Your task to perform on an android device: open wifi settings Image 0: 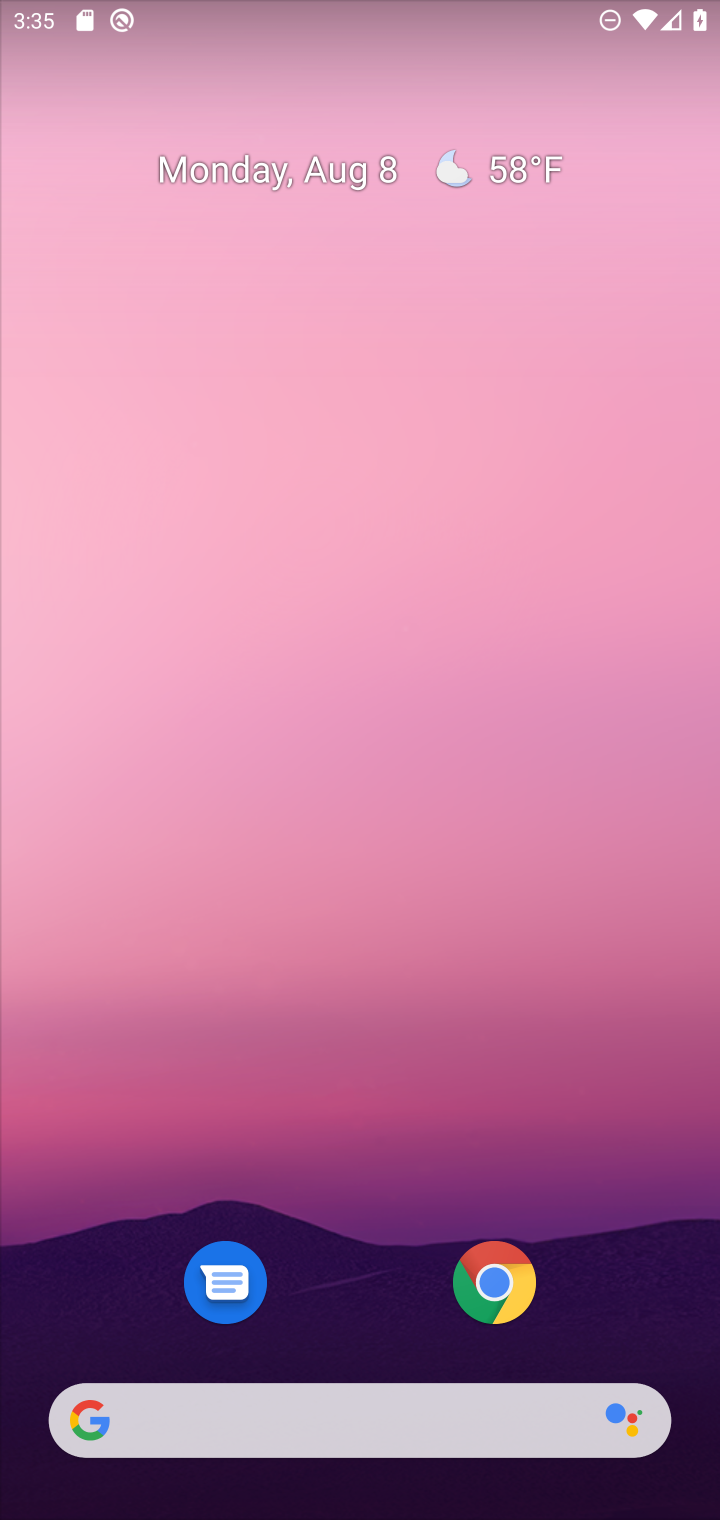
Step 0: drag from (378, 1076) to (442, 313)
Your task to perform on an android device: open wifi settings Image 1: 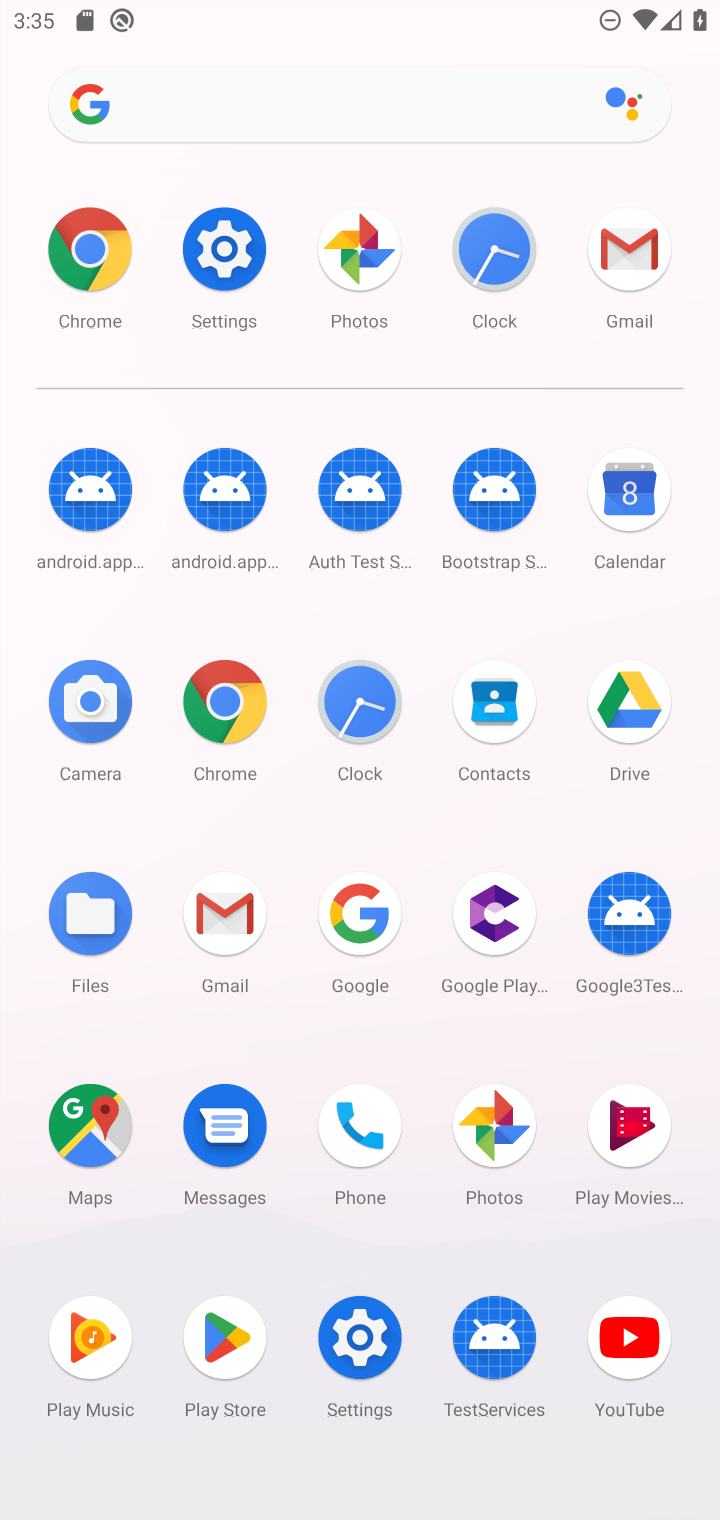
Step 1: click (221, 240)
Your task to perform on an android device: open wifi settings Image 2: 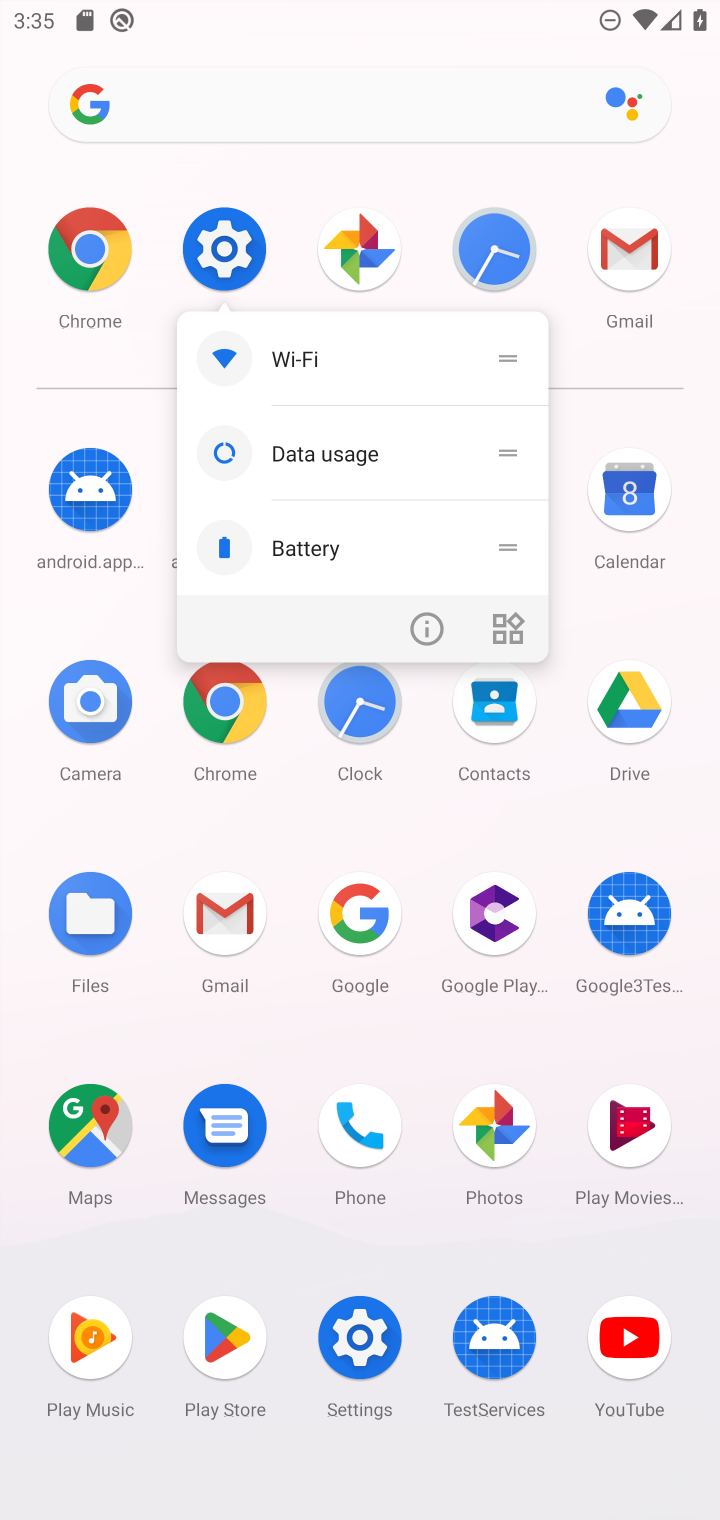
Step 2: click (218, 254)
Your task to perform on an android device: open wifi settings Image 3: 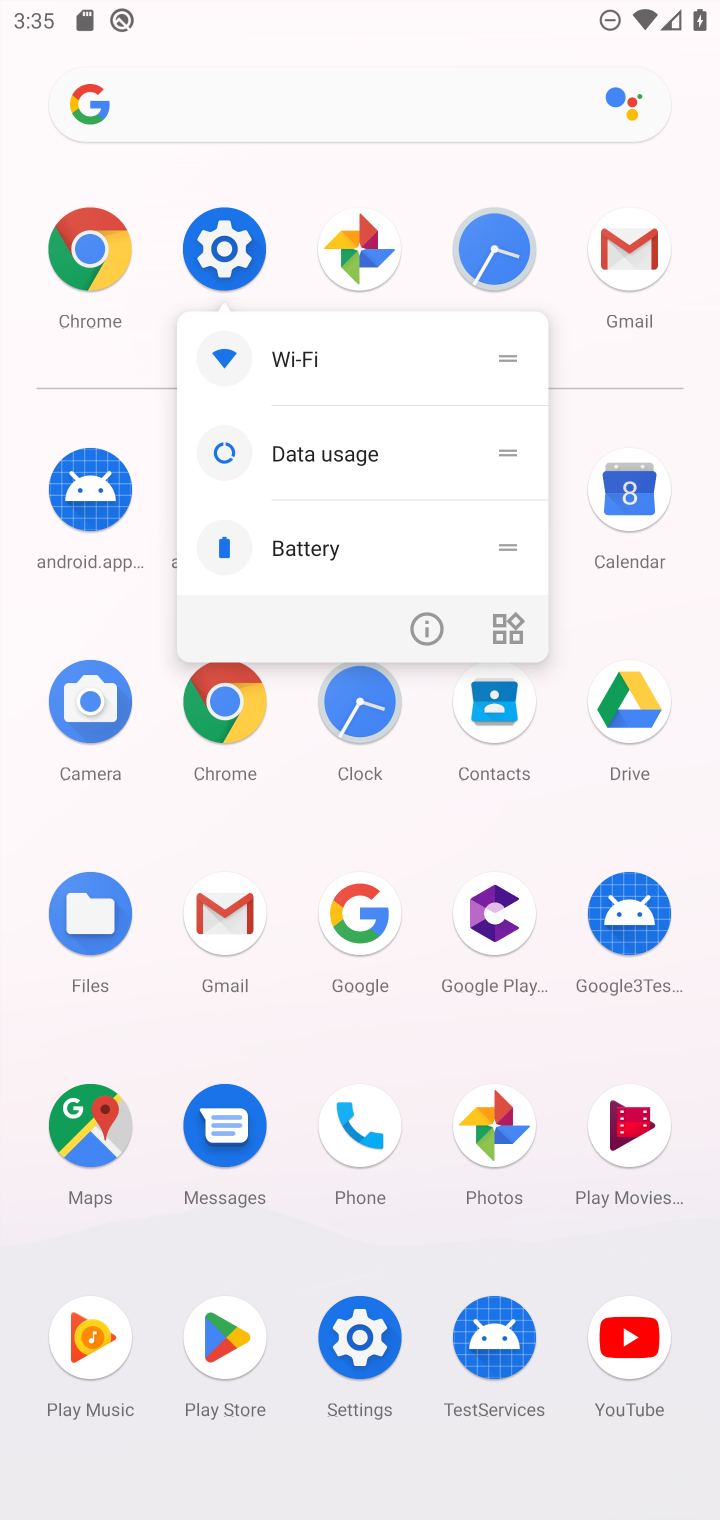
Step 3: click (222, 241)
Your task to perform on an android device: open wifi settings Image 4: 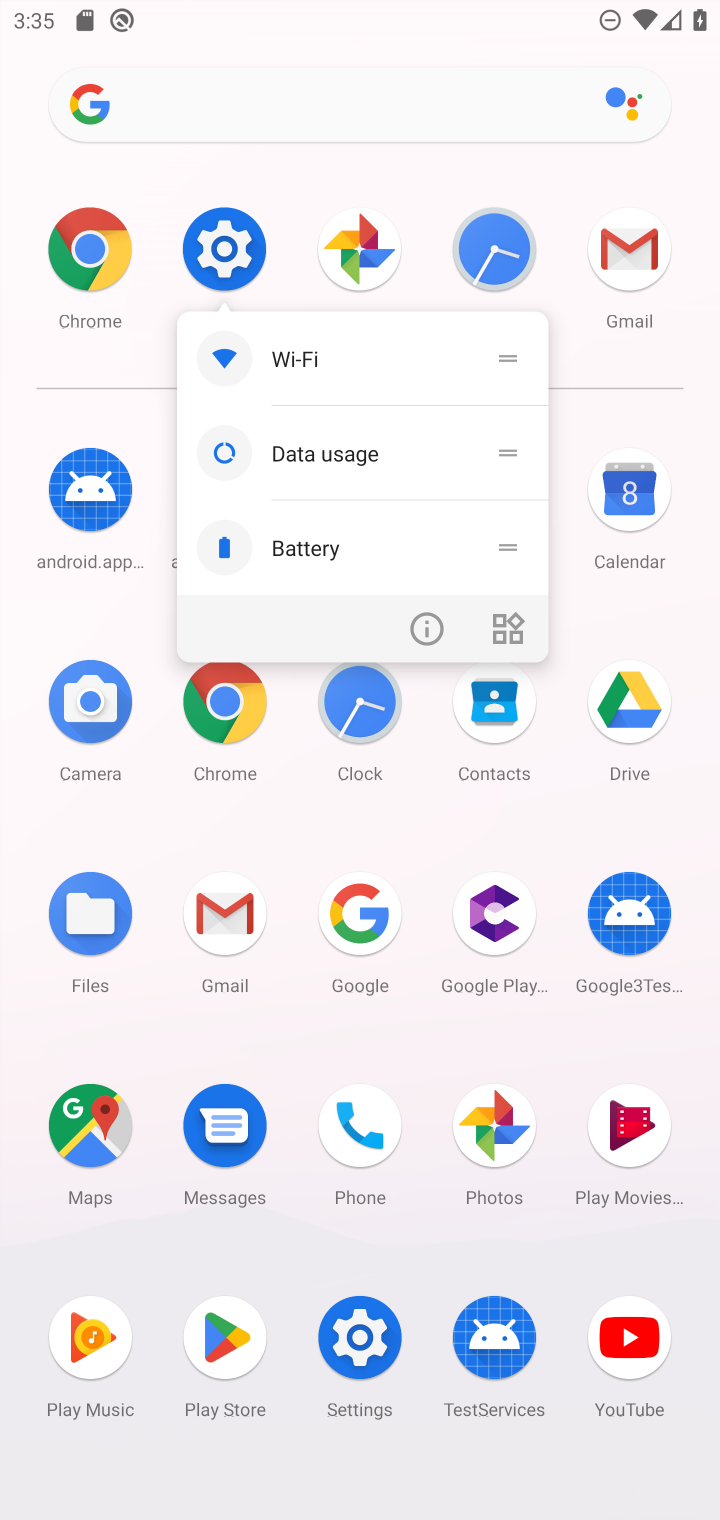
Step 4: click (340, 1325)
Your task to perform on an android device: open wifi settings Image 5: 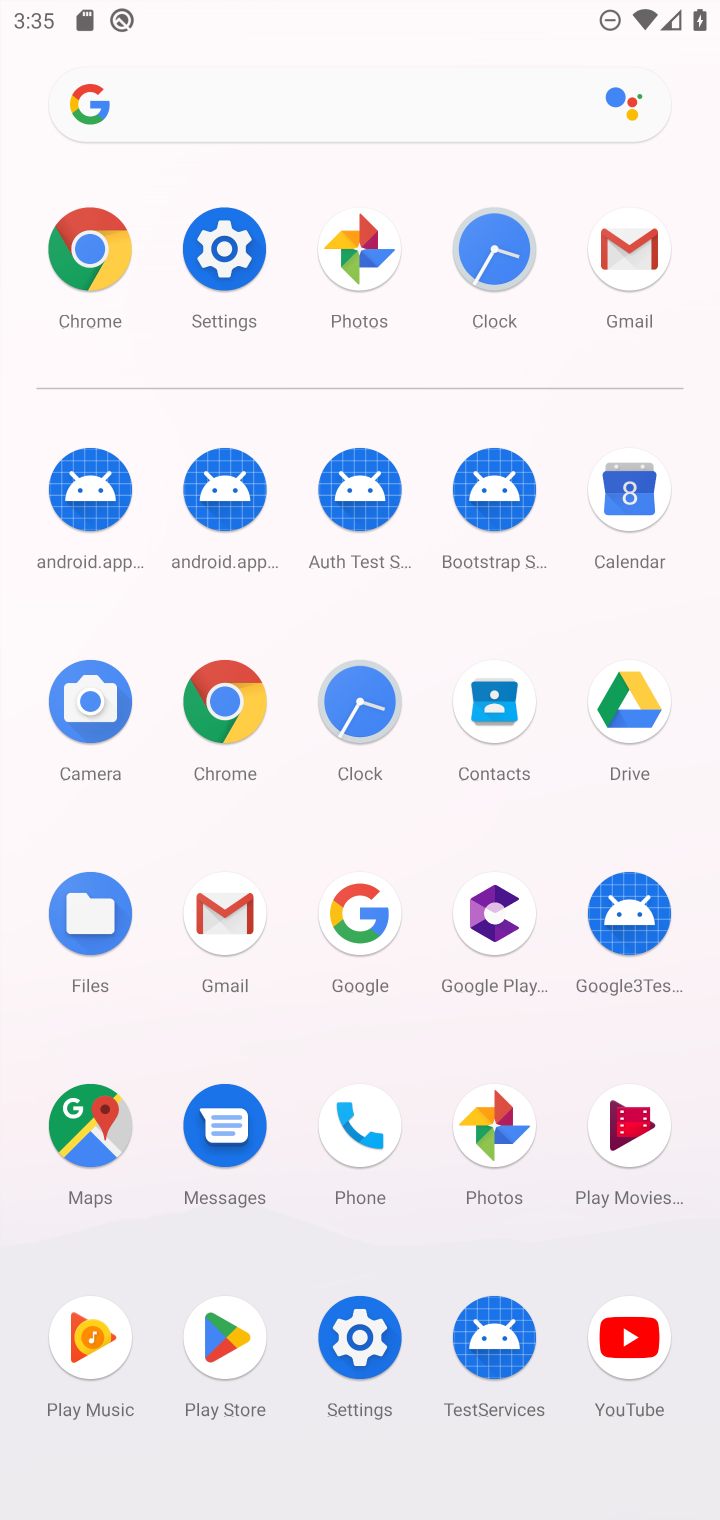
Step 5: click (357, 1323)
Your task to perform on an android device: open wifi settings Image 6: 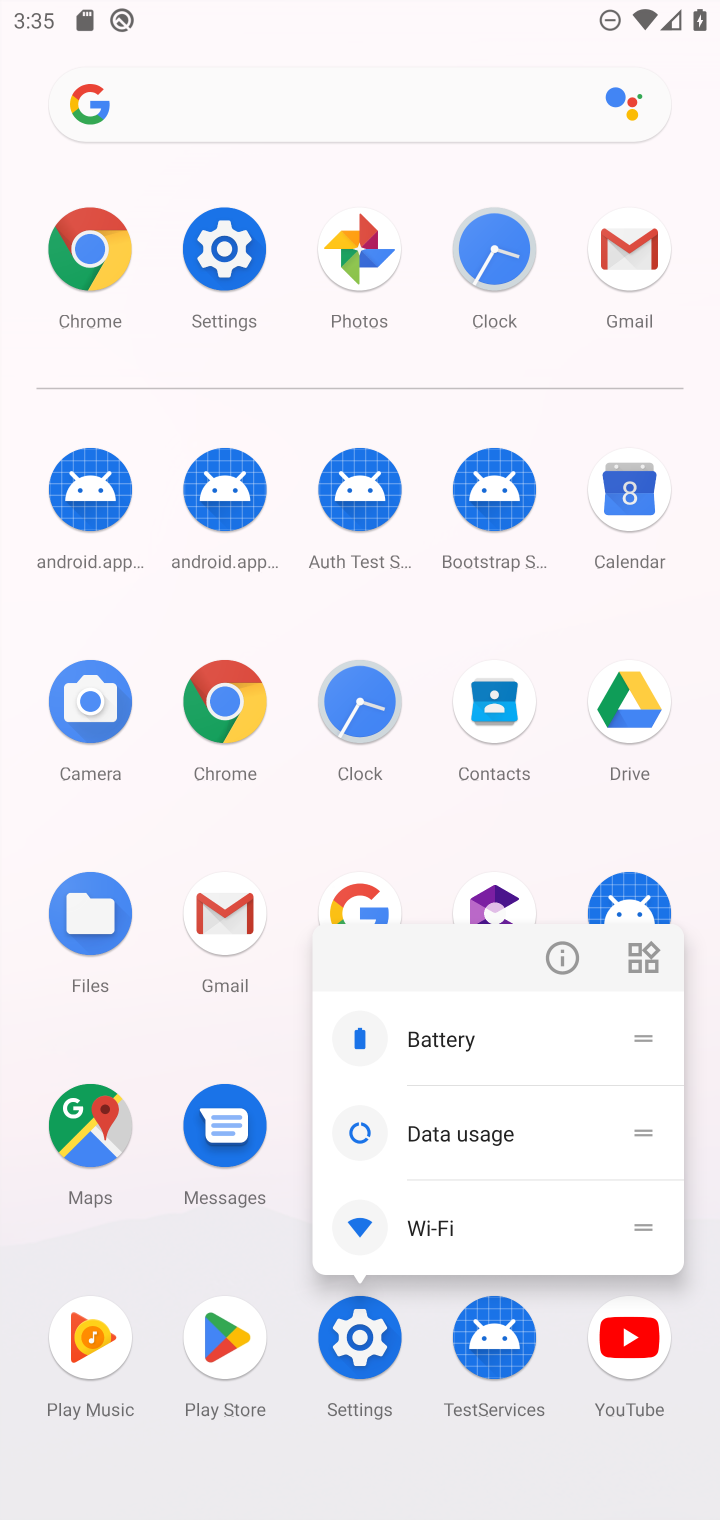
Step 6: click (353, 1340)
Your task to perform on an android device: open wifi settings Image 7: 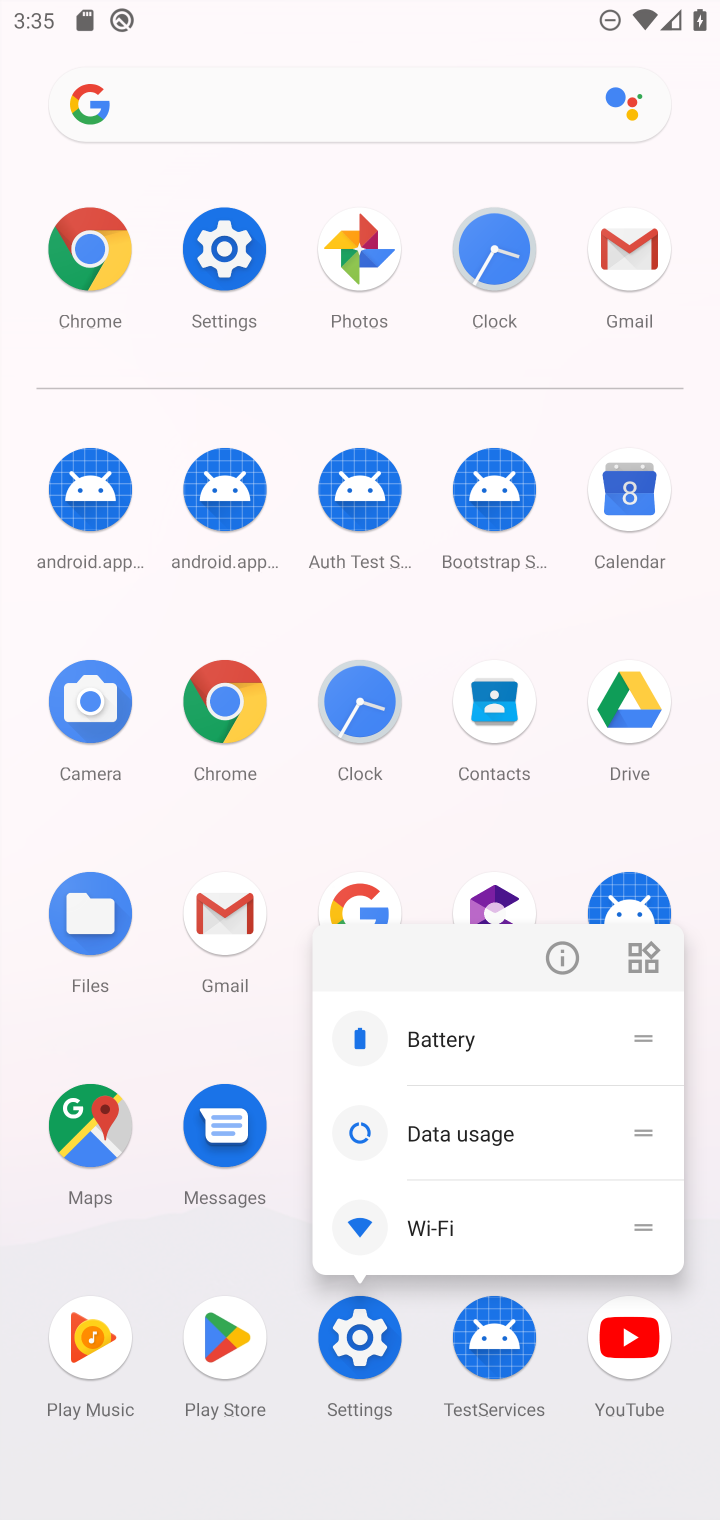
Step 7: click (353, 1340)
Your task to perform on an android device: open wifi settings Image 8: 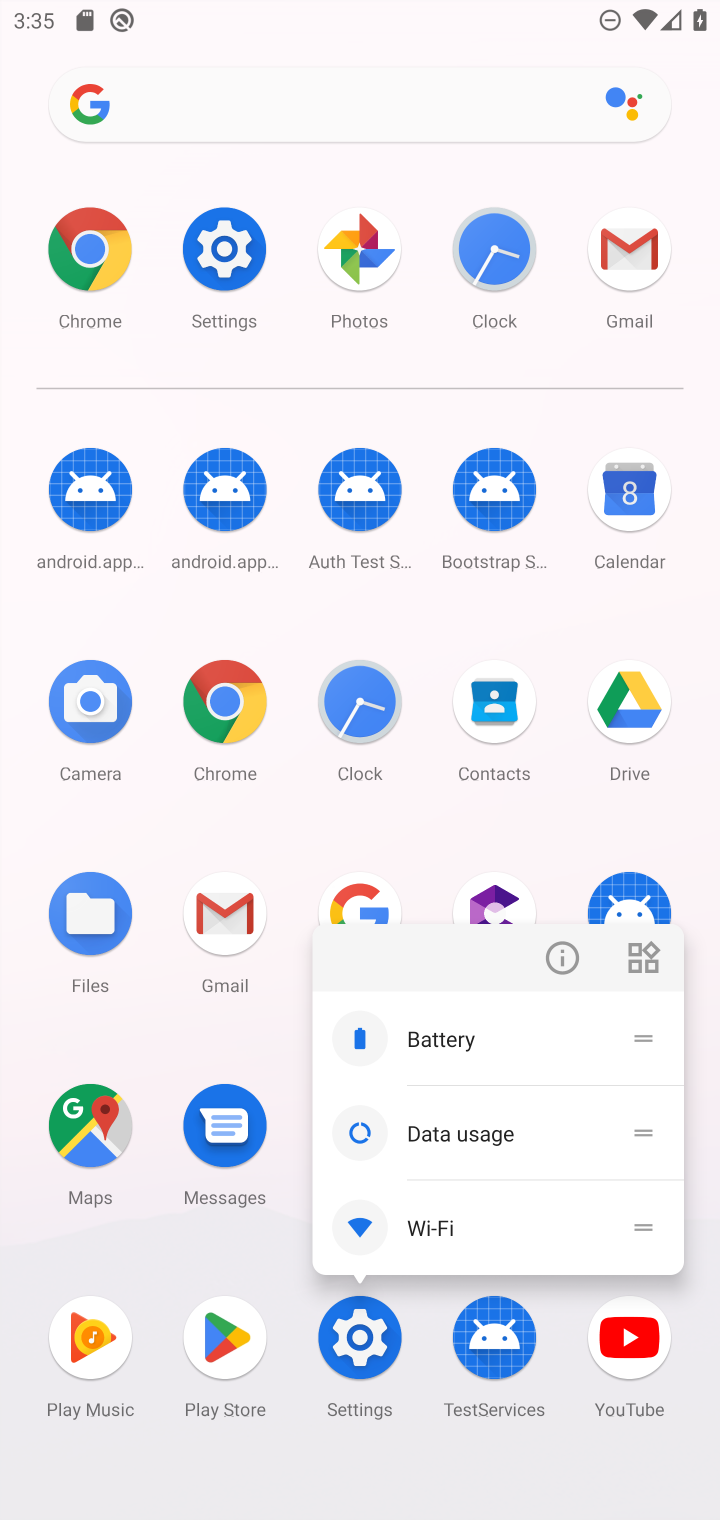
Step 8: click (353, 1340)
Your task to perform on an android device: open wifi settings Image 9: 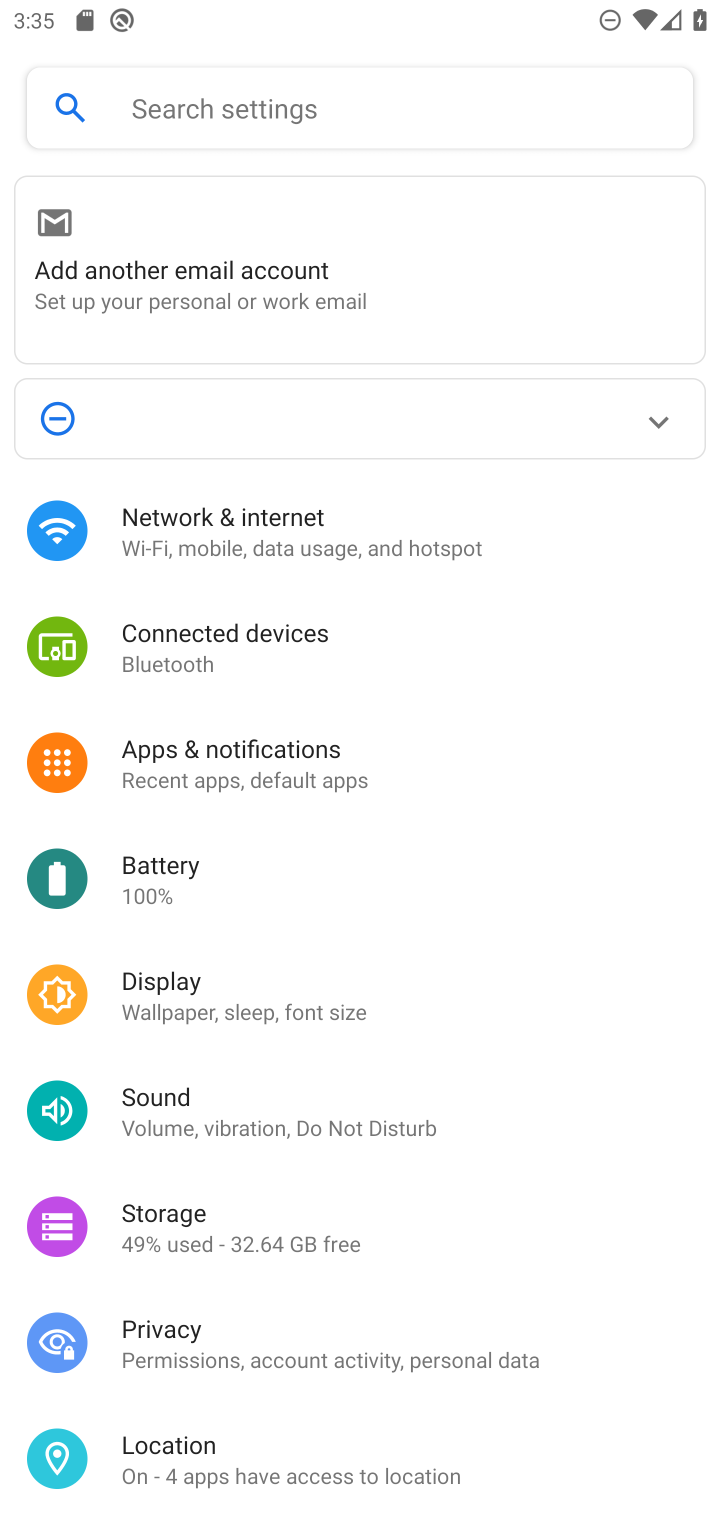
Step 9: click (248, 542)
Your task to perform on an android device: open wifi settings Image 10: 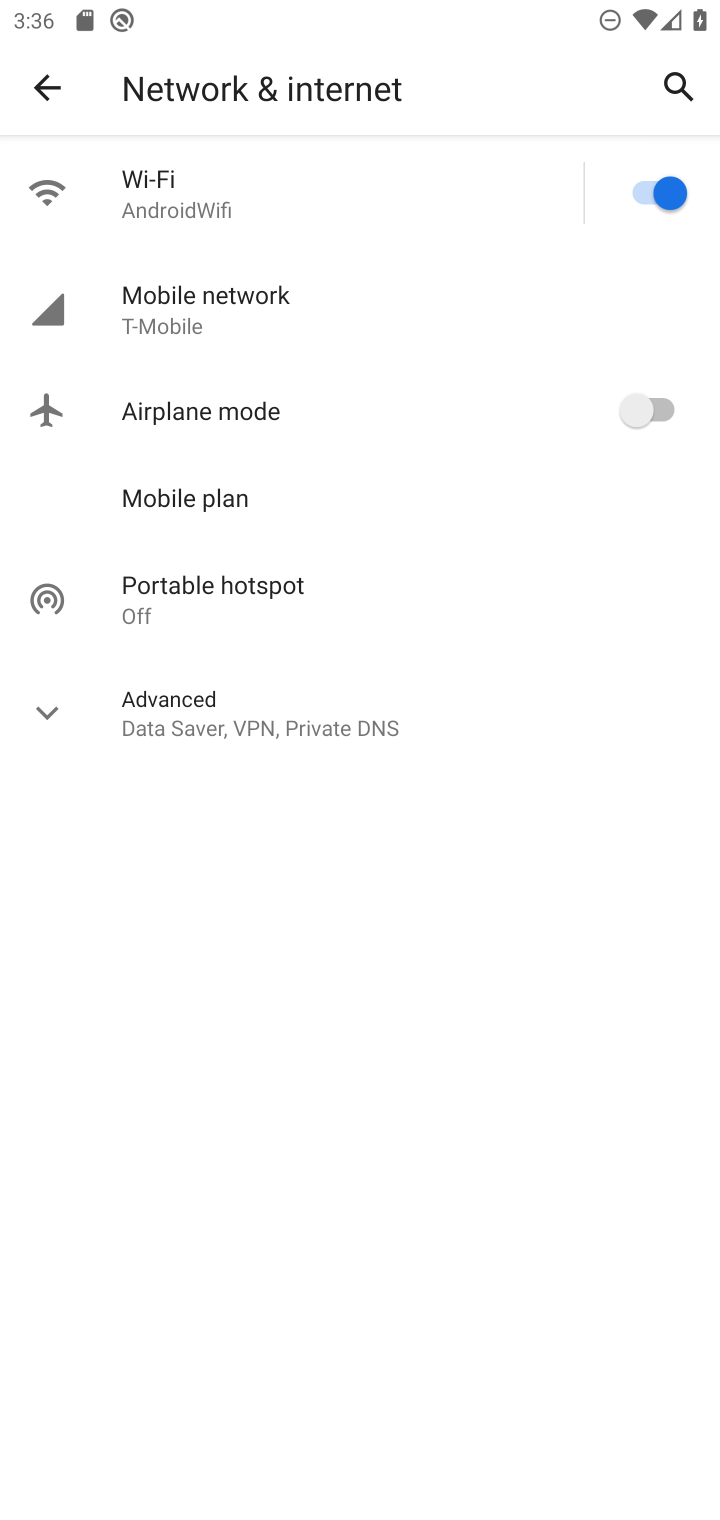
Step 10: click (415, 174)
Your task to perform on an android device: open wifi settings Image 11: 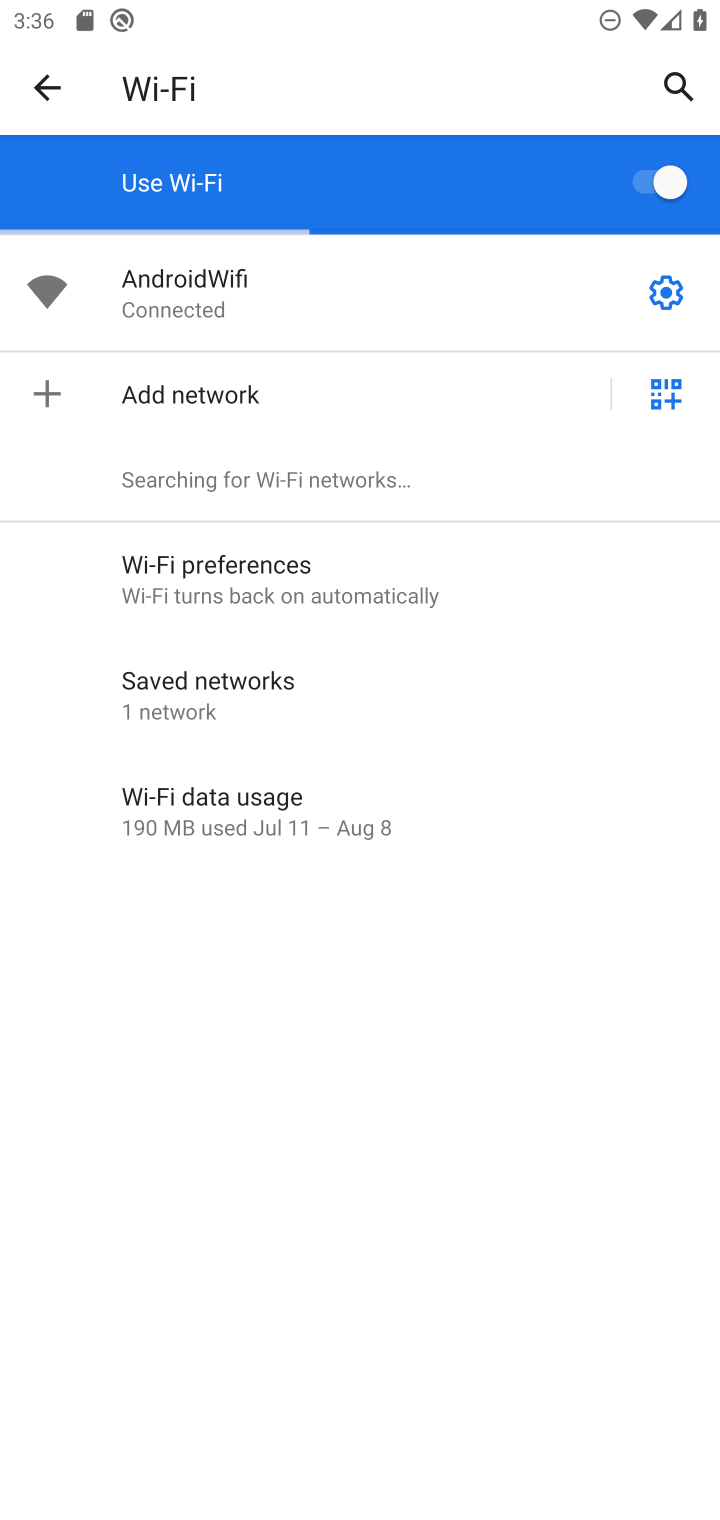
Step 11: click (667, 290)
Your task to perform on an android device: open wifi settings Image 12: 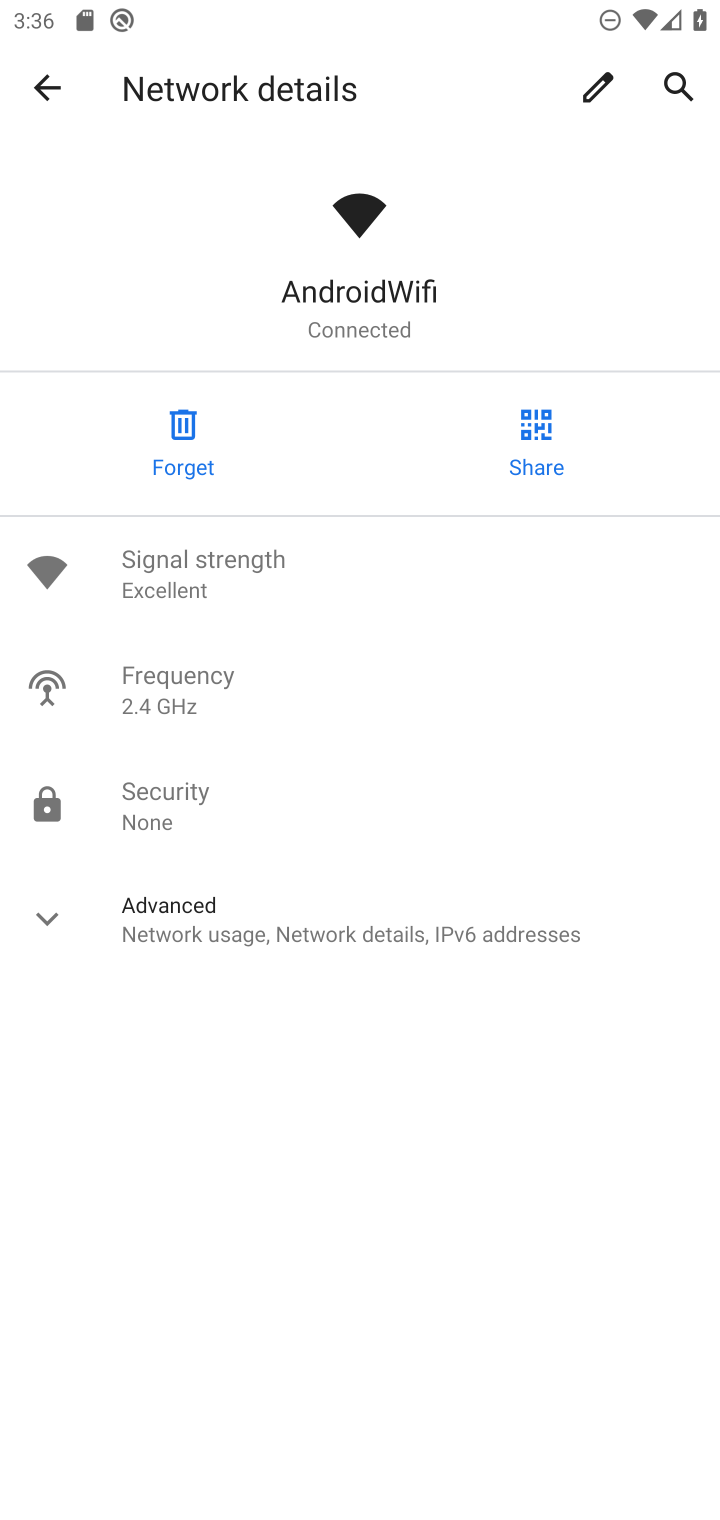
Step 12: task complete